Your task to perform on an android device: Open Yahoo.com Image 0: 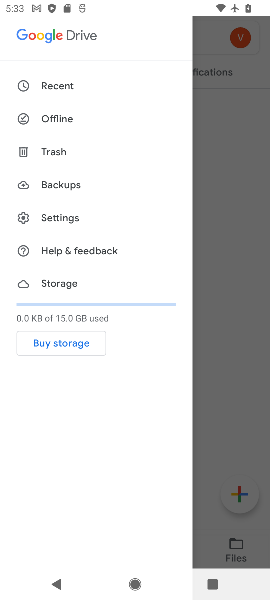
Step 0: press home button
Your task to perform on an android device: Open Yahoo.com Image 1: 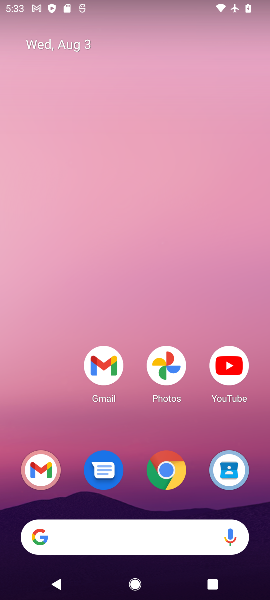
Step 1: drag from (71, 404) to (79, 342)
Your task to perform on an android device: Open Yahoo.com Image 2: 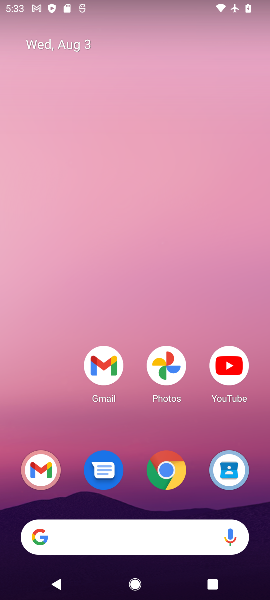
Step 2: drag from (86, 430) to (154, 165)
Your task to perform on an android device: Open Yahoo.com Image 3: 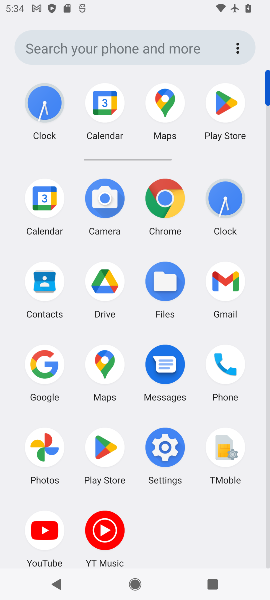
Step 3: click (164, 202)
Your task to perform on an android device: Open Yahoo.com Image 4: 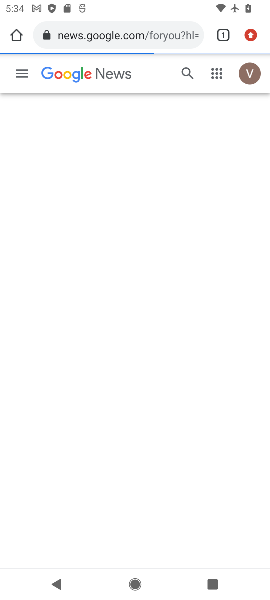
Step 4: click (129, 43)
Your task to perform on an android device: Open Yahoo.com Image 5: 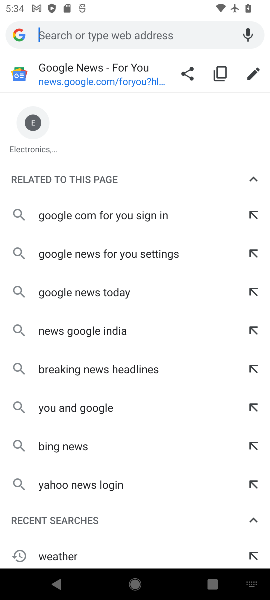
Step 5: type "yahoo.com"
Your task to perform on an android device: Open Yahoo.com Image 6: 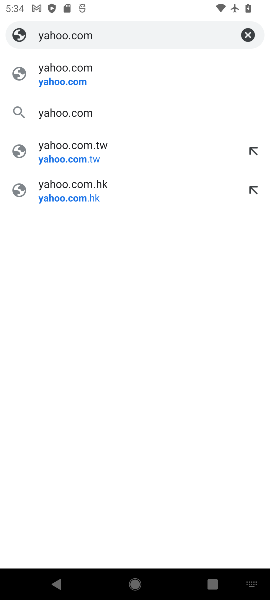
Step 6: click (60, 69)
Your task to perform on an android device: Open Yahoo.com Image 7: 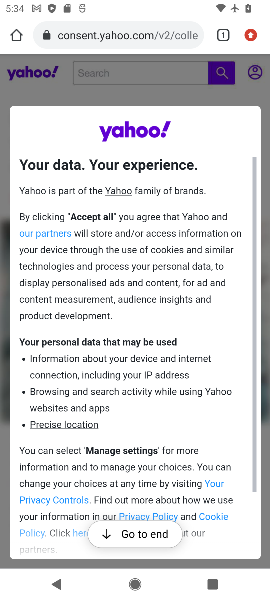
Step 7: task complete